Your task to perform on an android device: turn off javascript in the chrome app Image 0: 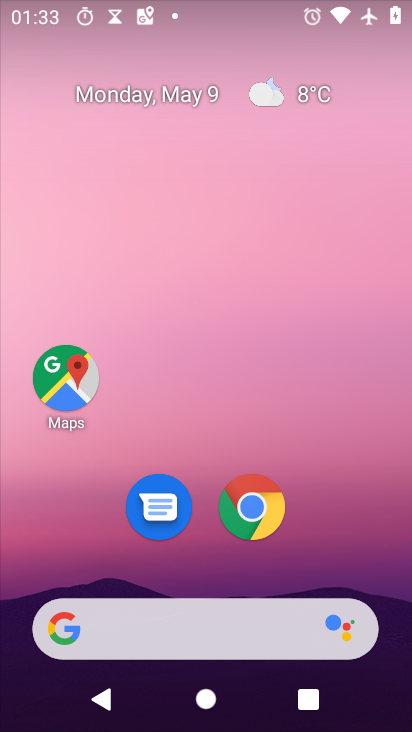
Step 0: click (254, 502)
Your task to perform on an android device: turn off javascript in the chrome app Image 1: 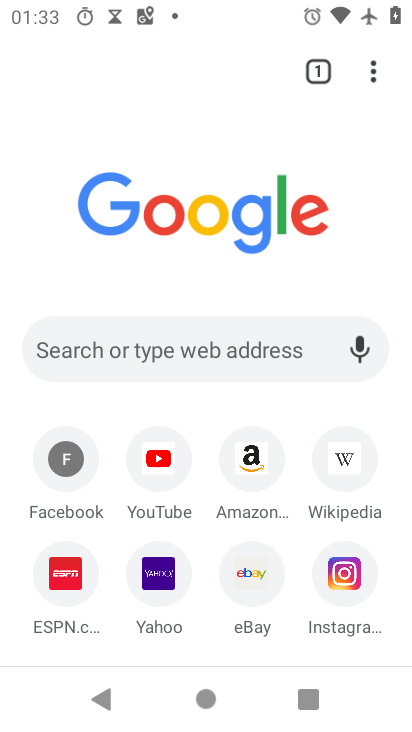
Step 1: click (373, 82)
Your task to perform on an android device: turn off javascript in the chrome app Image 2: 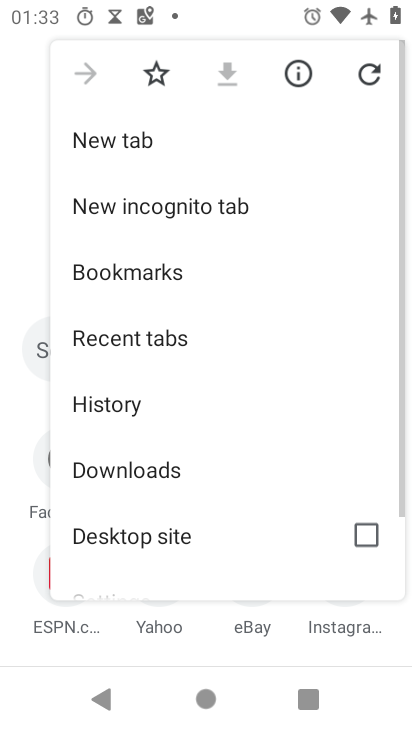
Step 2: drag from (163, 553) to (179, 193)
Your task to perform on an android device: turn off javascript in the chrome app Image 3: 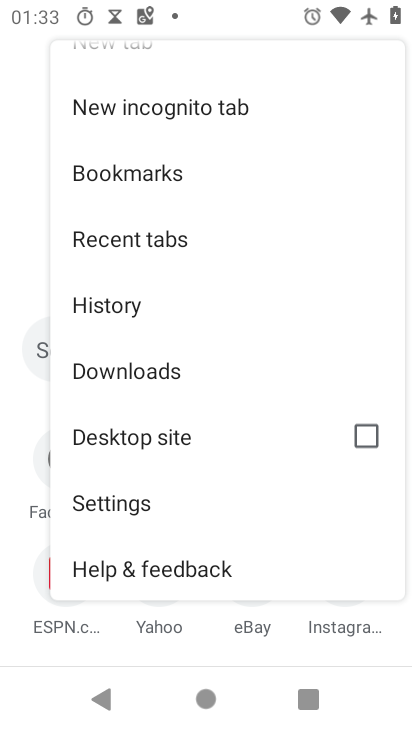
Step 3: click (114, 498)
Your task to perform on an android device: turn off javascript in the chrome app Image 4: 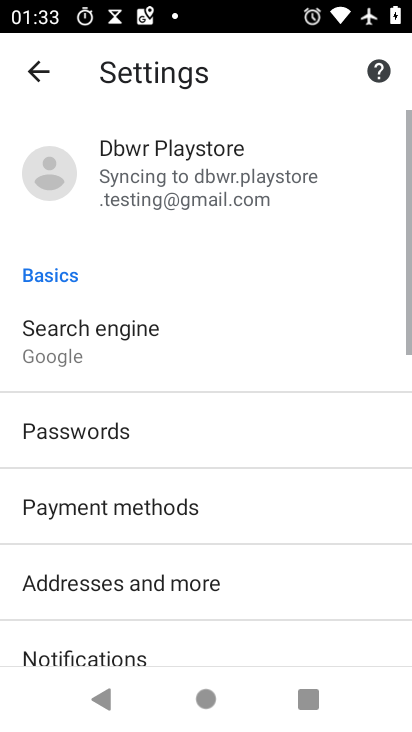
Step 4: drag from (176, 635) to (177, 289)
Your task to perform on an android device: turn off javascript in the chrome app Image 5: 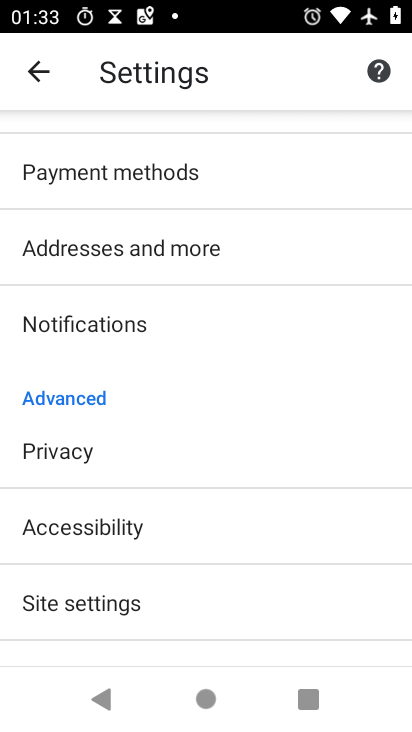
Step 5: drag from (146, 615) to (146, 321)
Your task to perform on an android device: turn off javascript in the chrome app Image 6: 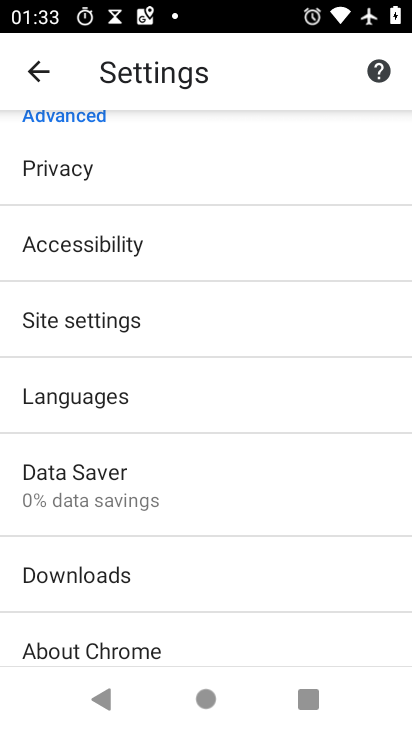
Step 6: click (91, 317)
Your task to perform on an android device: turn off javascript in the chrome app Image 7: 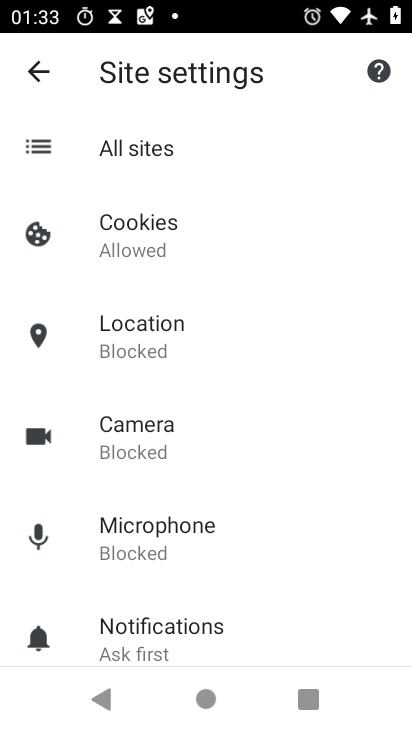
Step 7: drag from (155, 610) to (156, 289)
Your task to perform on an android device: turn off javascript in the chrome app Image 8: 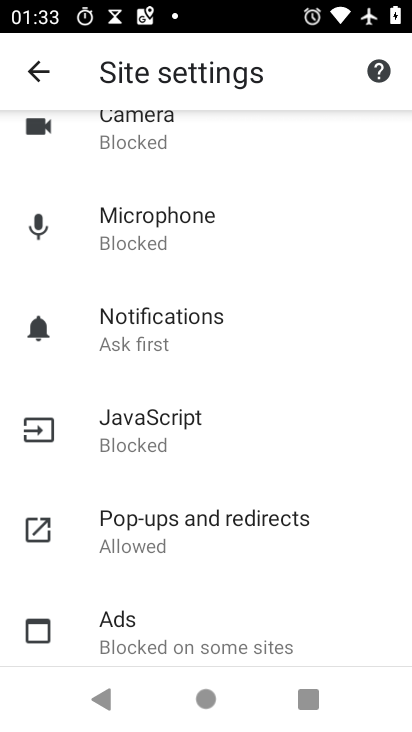
Step 8: click (140, 417)
Your task to perform on an android device: turn off javascript in the chrome app Image 9: 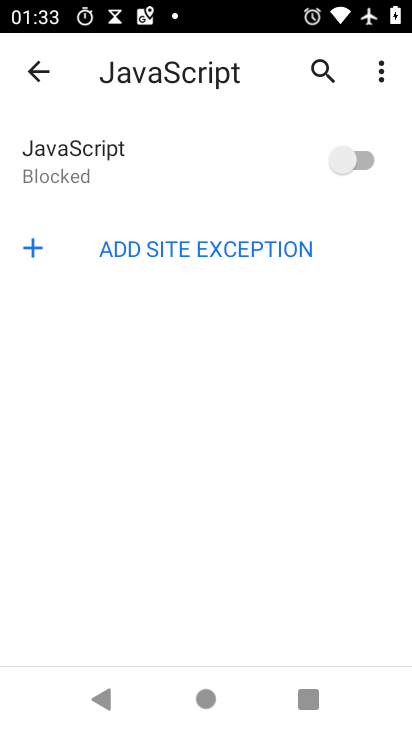
Step 9: task complete